Your task to perform on an android device: Open settings on Google Maps Image 0: 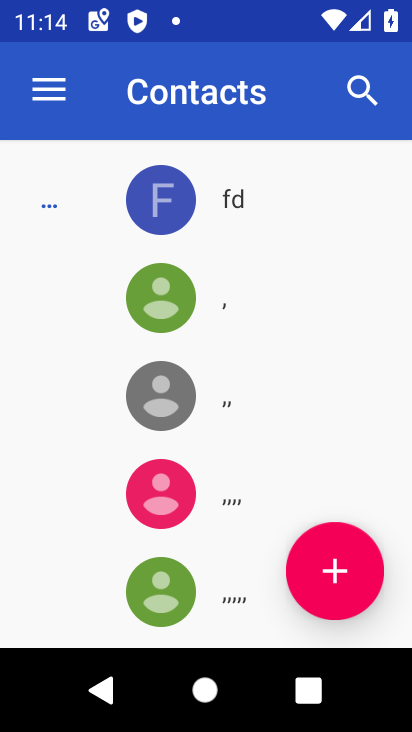
Step 0: press home button
Your task to perform on an android device: Open settings on Google Maps Image 1: 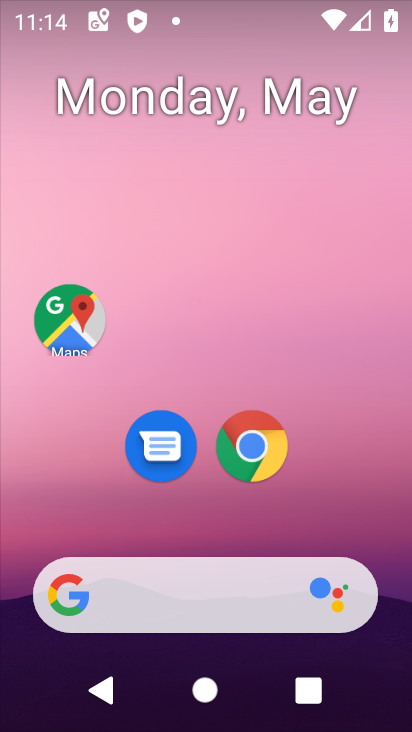
Step 1: click (68, 345)
Your task to perform on an android device: Open settings on Google Maps Image 2: 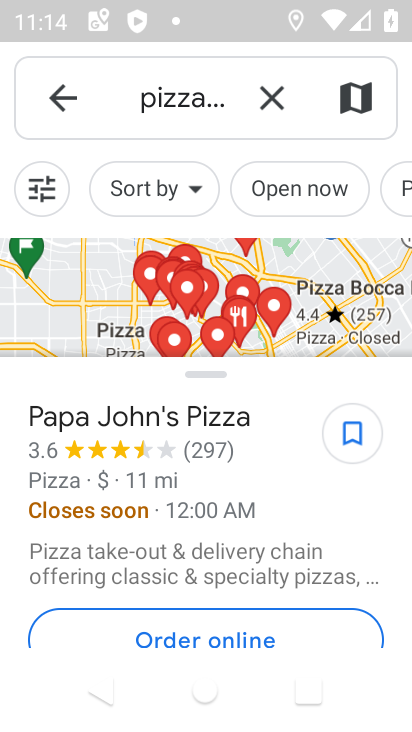
Step 2: task complete